Your task to perform on an android device: turn off location Image 0: 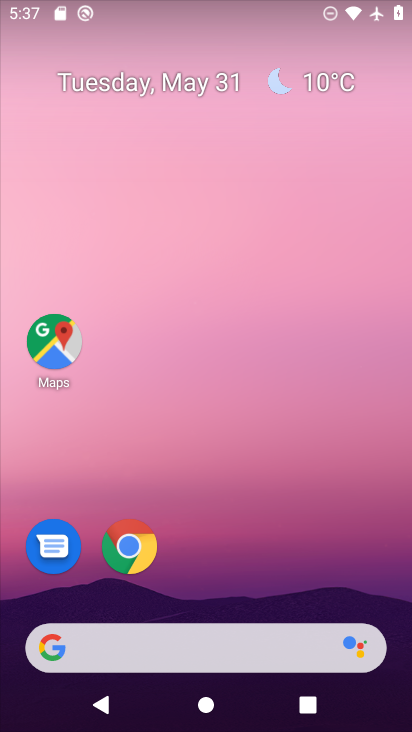
Step 0: drag from (267, 526) to (199, 3)
Your task to perform on an android device: turn off location Image 1: 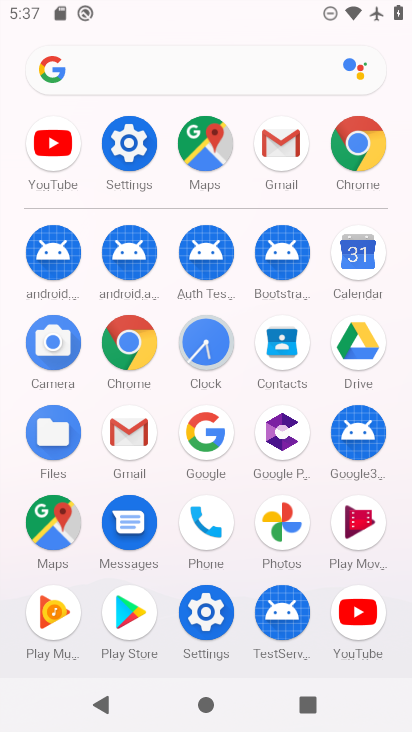
Step 1: click (147, 157)
Your task to perform on an android device: turn off location Image 2: 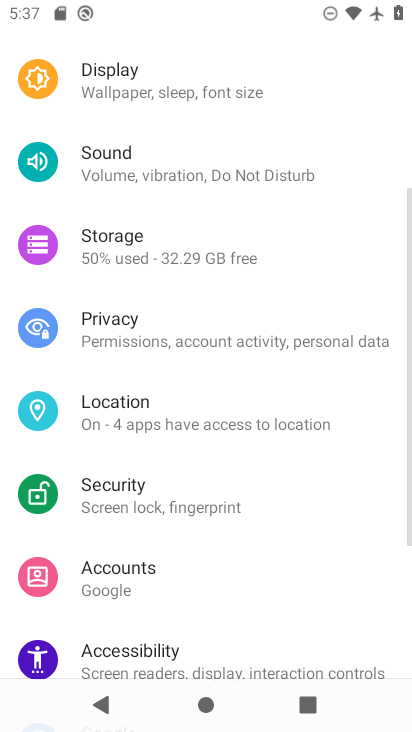
Step 2: drag from (216, 607) to (218, 295)
Your task to perform on an android device: turn off location Image 3: 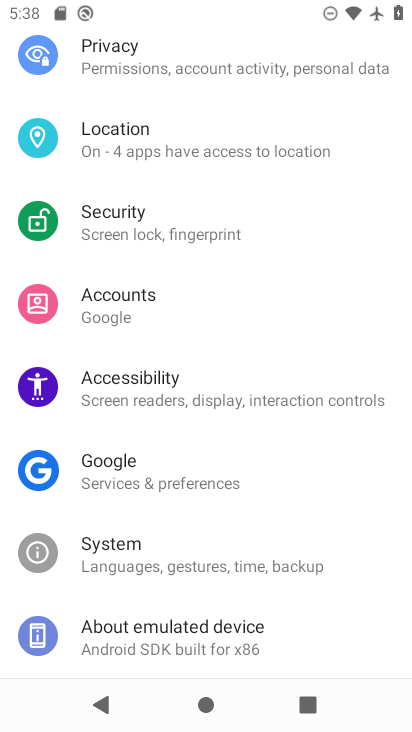
Step 3: click (168, 142)
Your task to perform on an android device: turn off location Image 4: 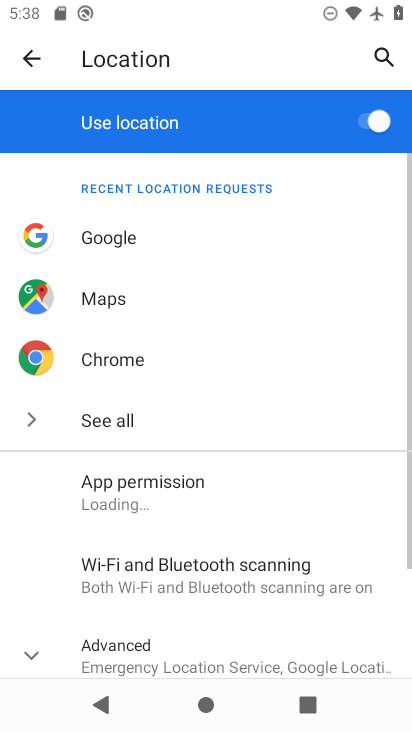
Step 4: click (370, 109)
Your task to perform on an android device: turn off location Image 5: 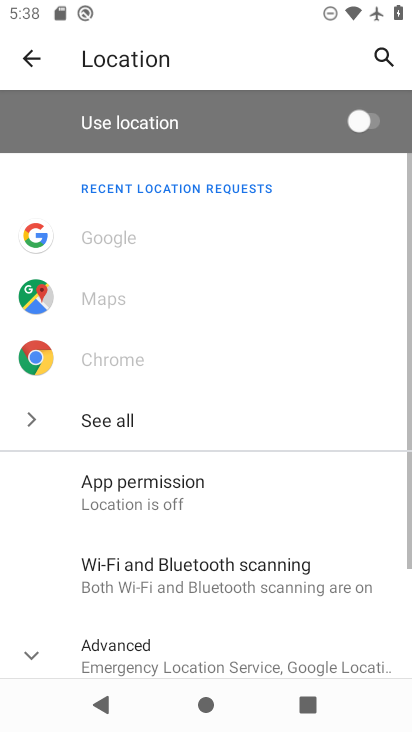
Step 5: task complete